Your task to perform on an android device: Add bose quietcomfort 35 to the cart on bestbuy.com Image 0: 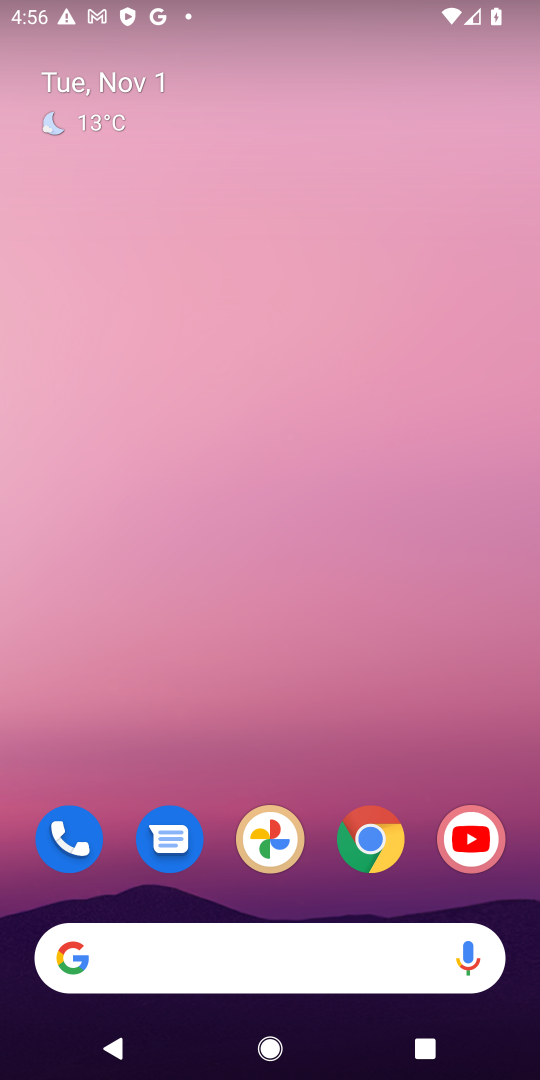
Step 0: drag from (325, 882) to (341, 31)
Your task to perform on an android device: Add bose quietcomfort 35 to the cart on bestbuy.com Image 1: 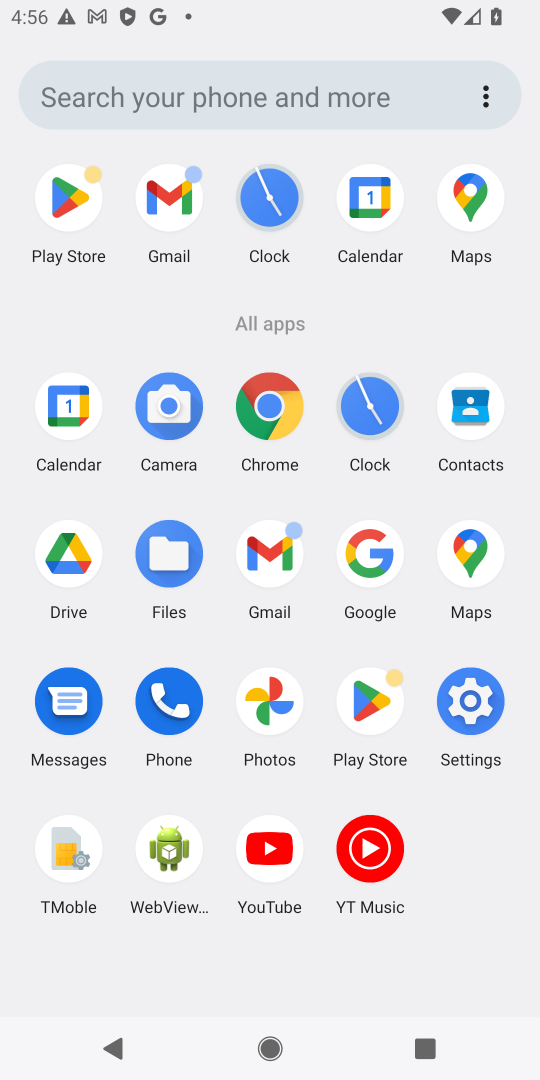
Step 1: click (265, 407)
Your task to perform on an android device: Add bose quietcomfort 35 to the cart on bestbuy.com Image 2: 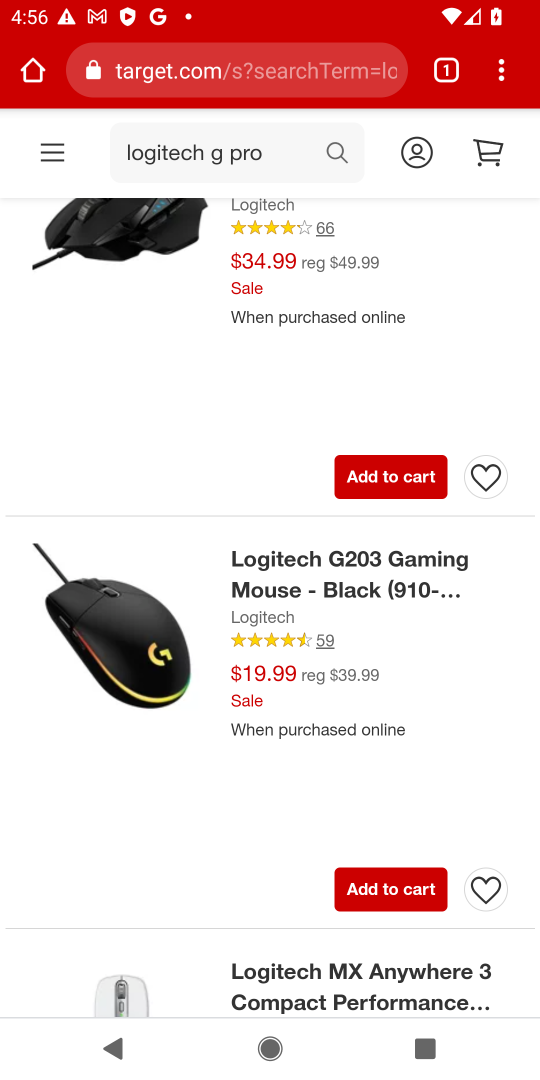
Step 2: click (240, 78)
Your task to perform on an android device: Add bose quietcomfort 35 to the cart on bestbuy.com Image 3: 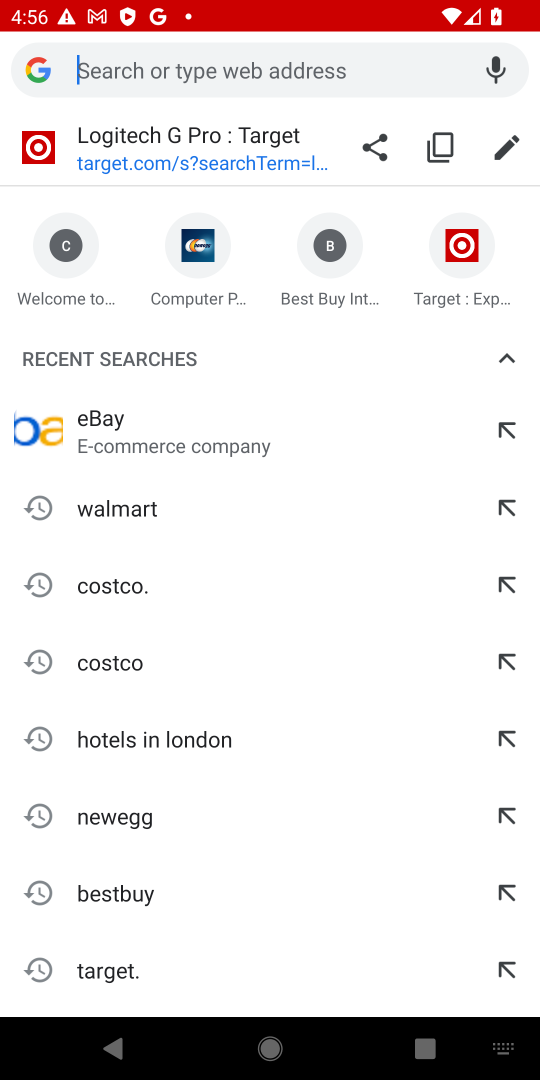
Step 3: type "bestbuy.com"
Your task to perform on an android device: Add bose quietcomfort 35 to the cart on bestbuy.com Image 4: 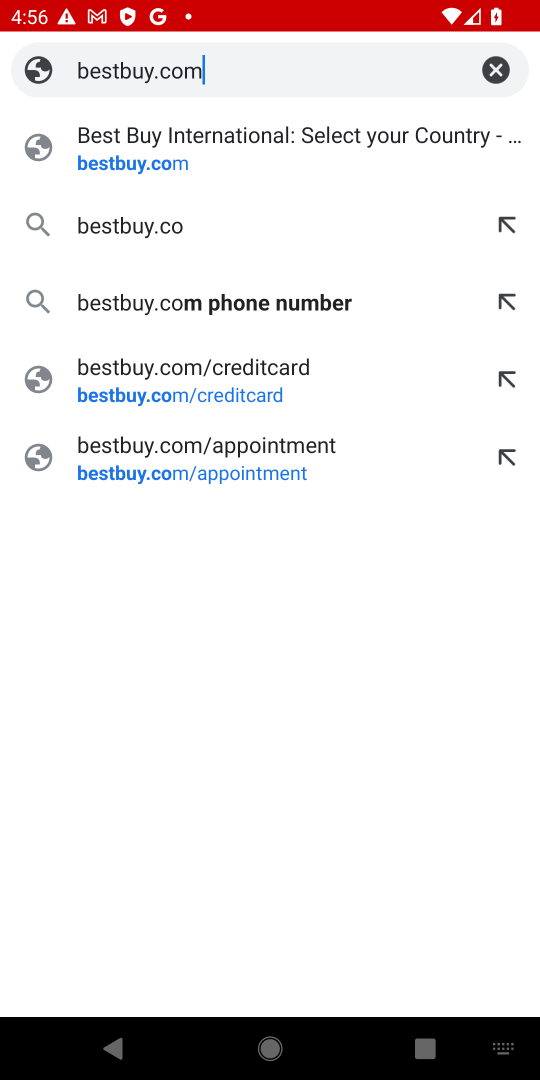
Step 4: press enter
Your task to perform on an android device: Add bose quietcomfort 35 to the cart on bestbuy.com Image 5: 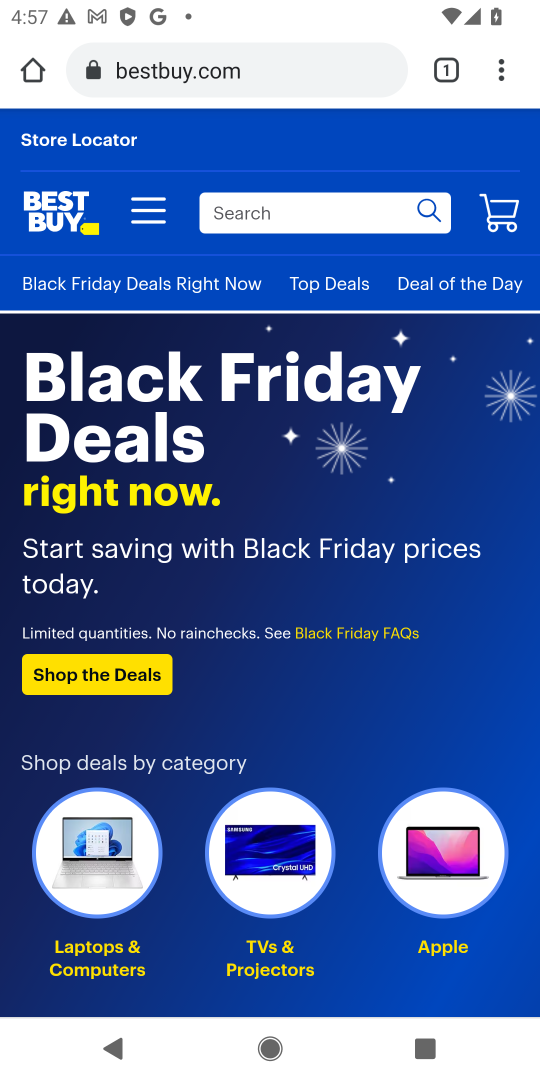
Step 5: click (334, 213)
Your task to perform on an android device: Add bose quietcomfort 35 to the cart on bestbuy.com Image 6: 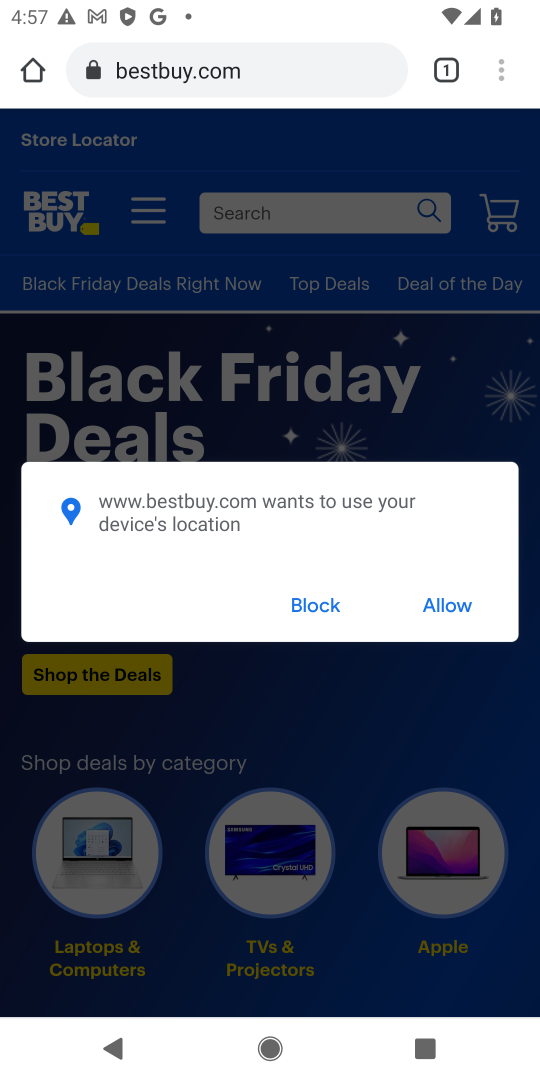
Step 6: click (291, 604)
Your task to perform on an android device: Add bose quietcomfort 35 to the cart on bestbuy.com Image 7: 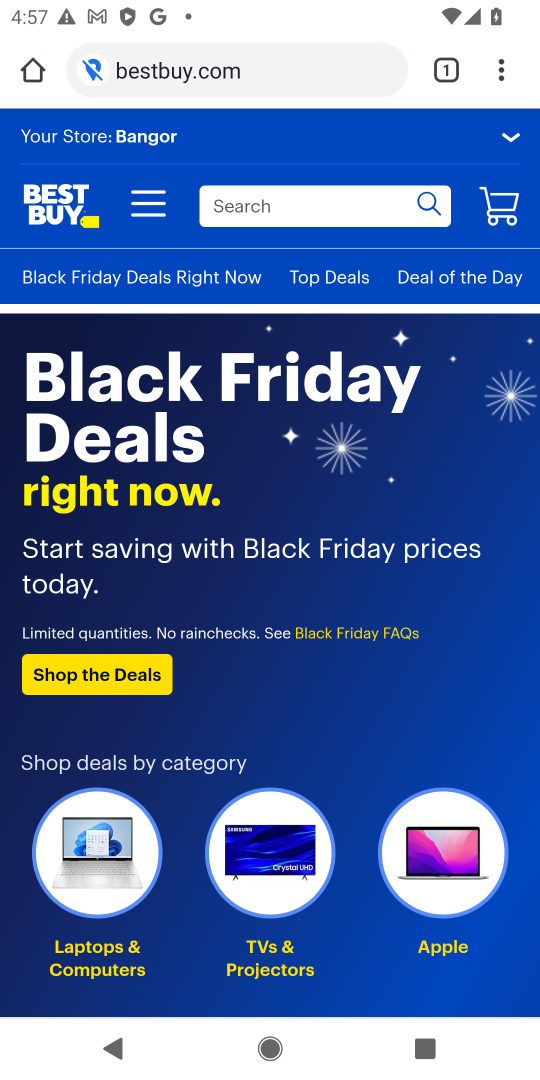
Step 7: click (356, 209)
Your task to perform on an android device: Add bose quietcomfort 35 to the cart on bestbuy.com Image 8: 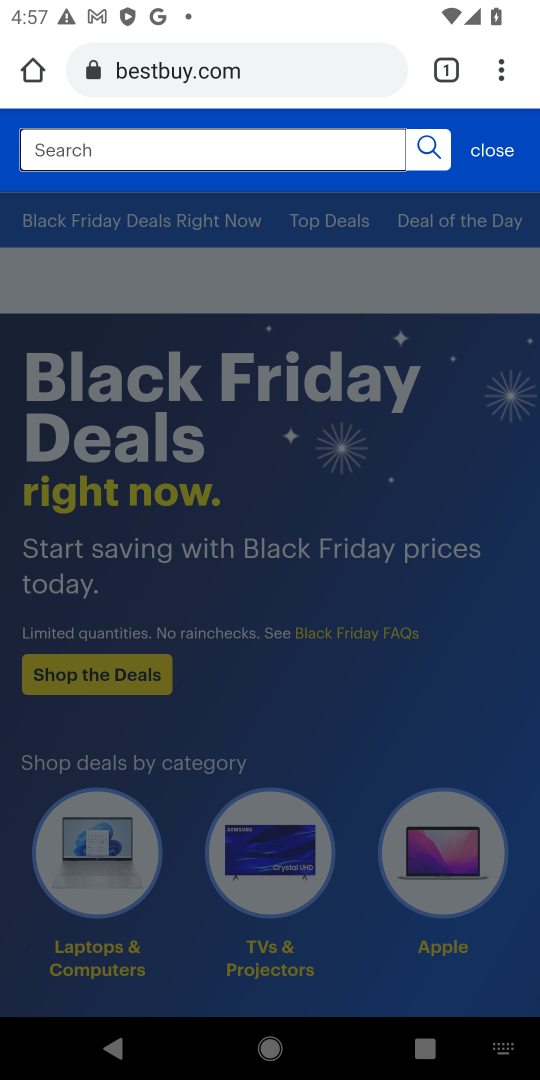
Step 8: type "bose quietcomforrt 35"
Your task to perform on an android device: Add bose quietcomfort 35 to the cart on bestbuy.com Image 9: 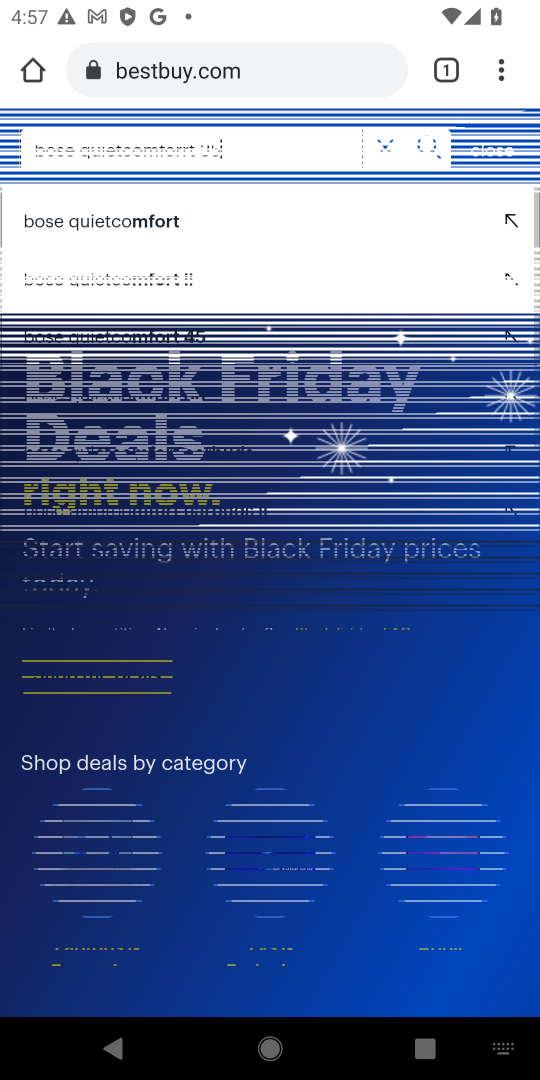
Step 9: press enter
Your task to perform on an android device: Add bose quietcomfort 35 to the cart on bestbuy.com Image 10: 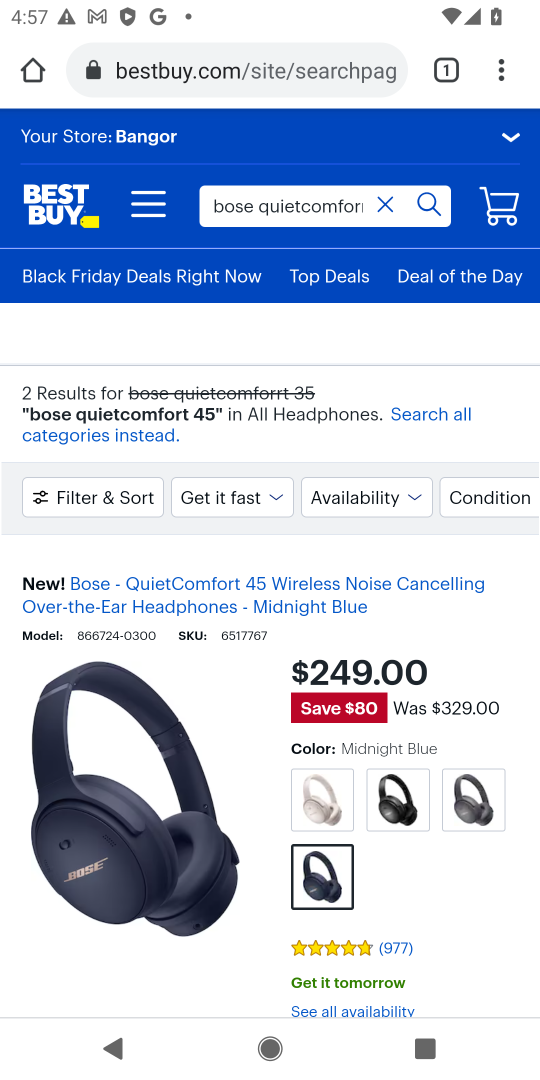
Step 10: task complete